Your task to perform on an android device: check android version Image 0: 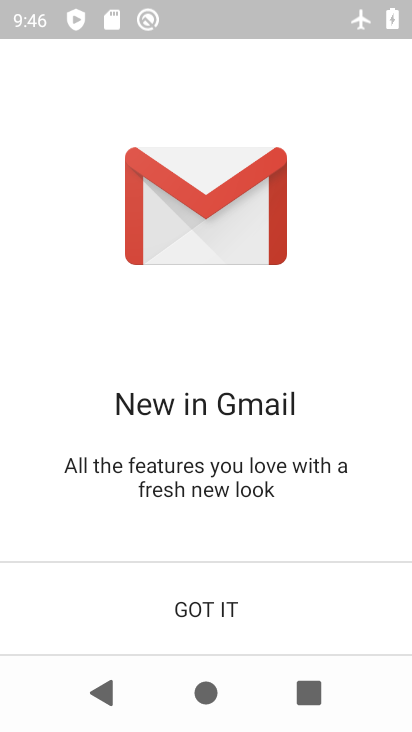
Step 0: press home button
Your task to perform on an android device: check android version Image 1: 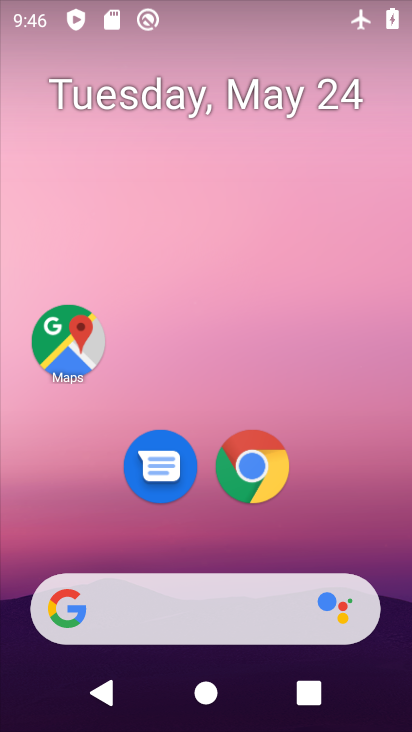
Step 1: drag from (185, 566) to (212, 20)
Your task to perform on an android device: check android version Image 2: 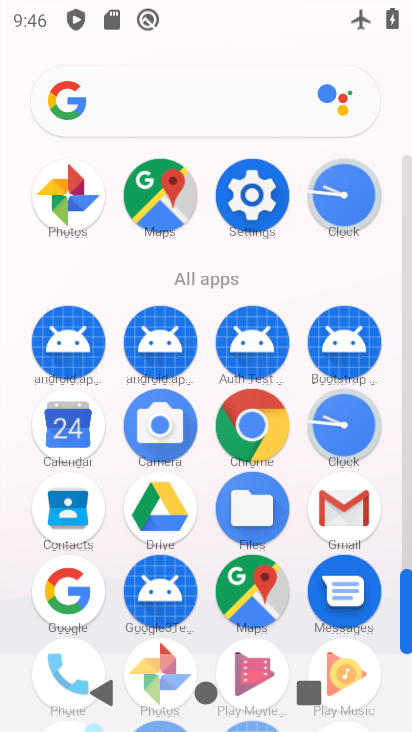
Step 2: click (259, 234)
Your task to perform on an android device: check android version Image 3: 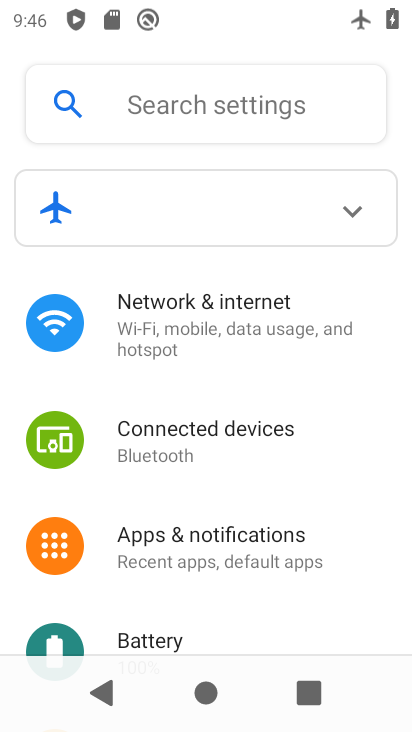
Step 3: drag from (139, 588) to (212, 40)
Your task to perform on an android device: check android version Image 4: 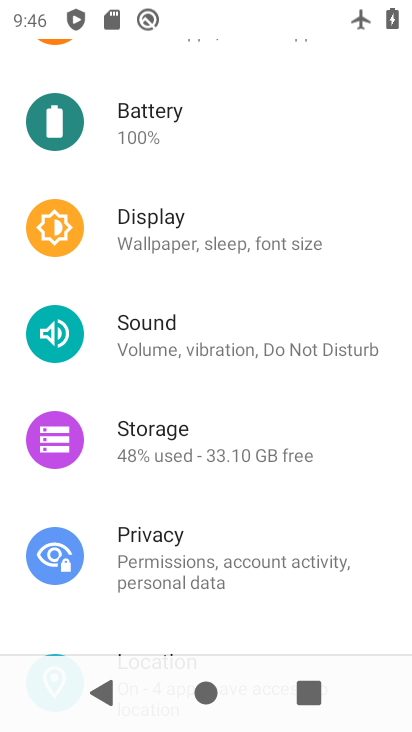
Step 4: drag from (193, 537) to (235, 24)
Your task to perform on an android device: check android version Image 5: 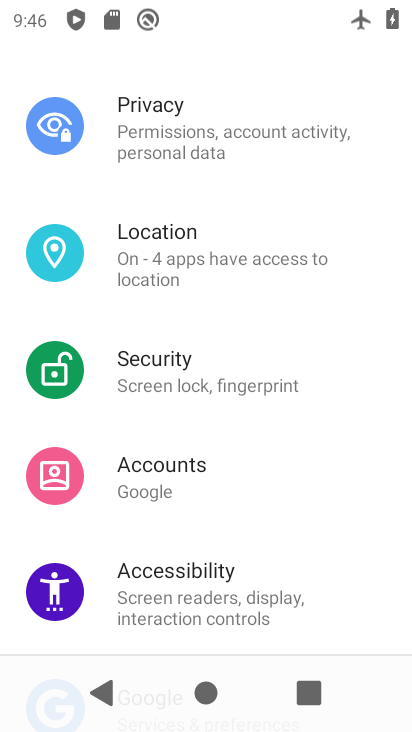
Step 5: drag from (206, 525) to (230, 95)
Your task to perform on an android device: check android version Image 6: 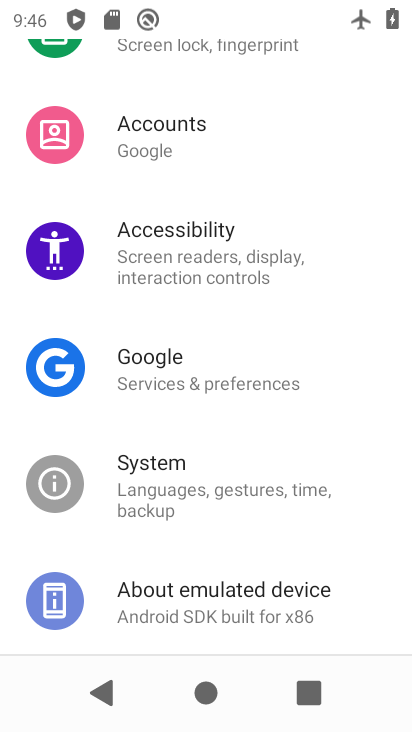
Step 6: drag from (176, 567) to (199, 279)
Your task to perform on an android device: check android version Image 7: 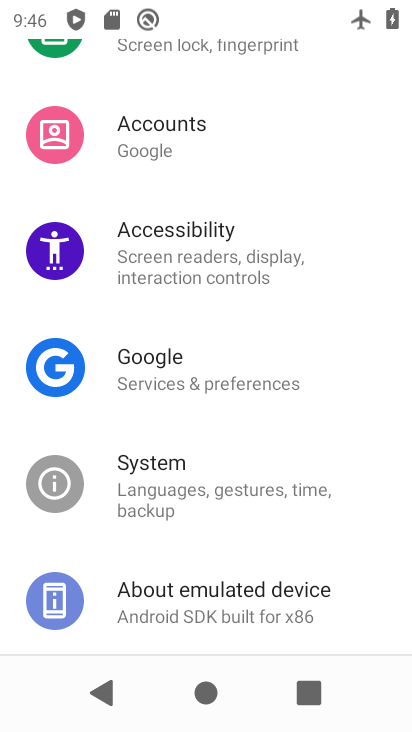
Step 7: click (191, 616)
Your task to perform on an android device: check android version Image 8: 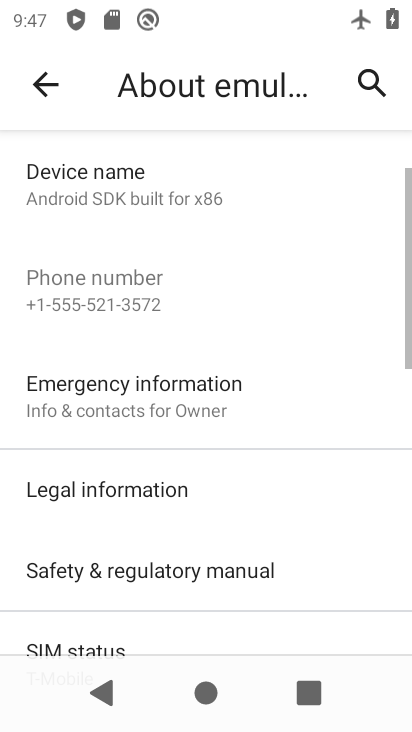
Step 8: drag from (118, 484) to (158, 0)
Your task to perform on an android device: check android version Image 9: 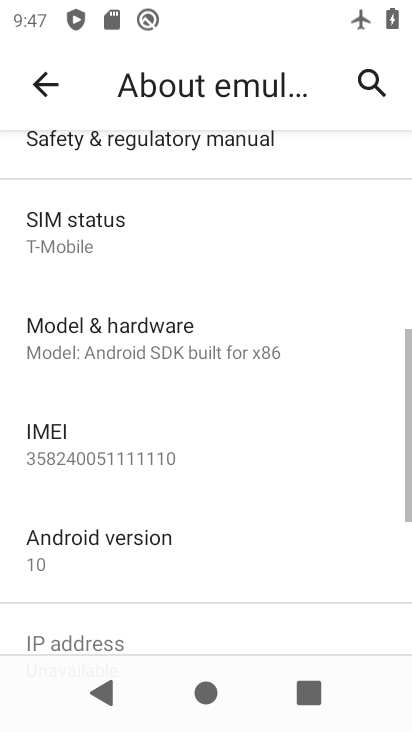
Step 9: click (141, 543)
Your task to perform on an android device: check android version Image 10: 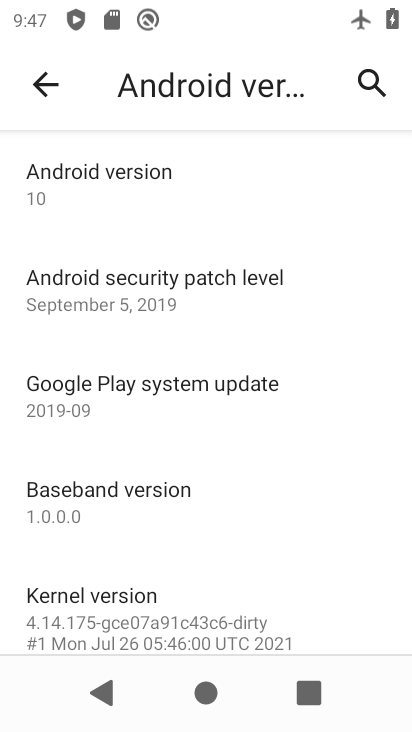
Step 10: task complete